Your task to perform on an android device: turn on priority inbox in the gmail app Image 0: 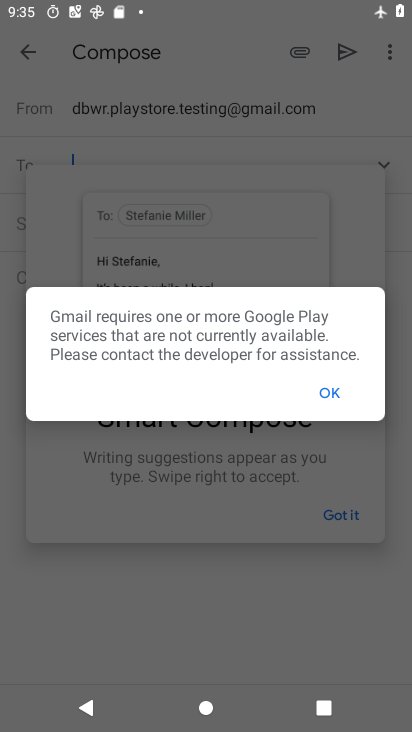
Step 0: press home button
Your task to perform on an android device: turn on priority inbox in the gmail app Image 1: 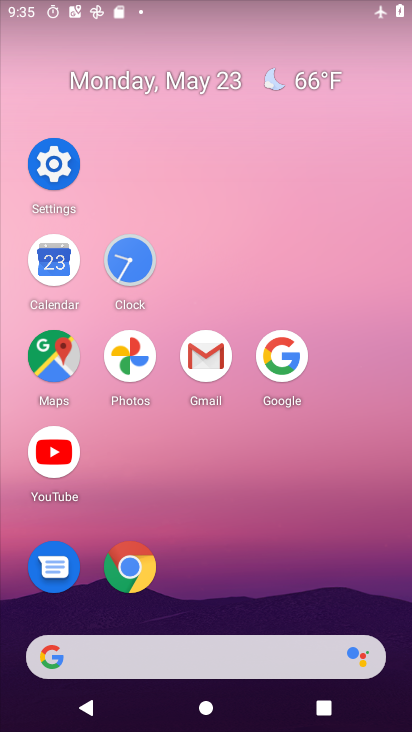
Step 1: click (219, 338)
Your task to perform on an android device: turn on priority inbox in the gmail app Image 2: 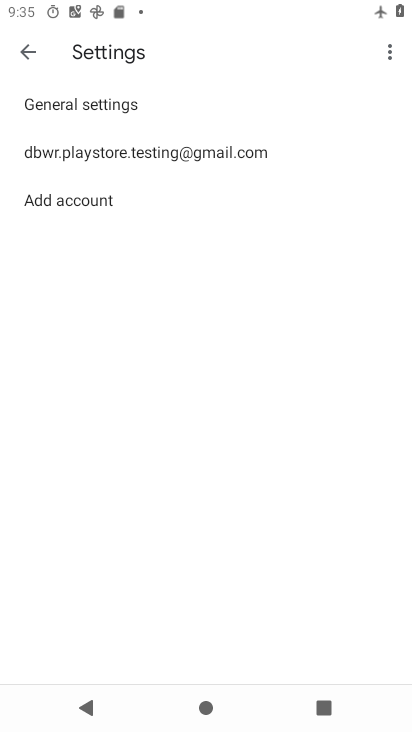
Step 2: click (17, 53)
Your task to perform on an android device: turn on priority inbox in the gmail app Image 3: 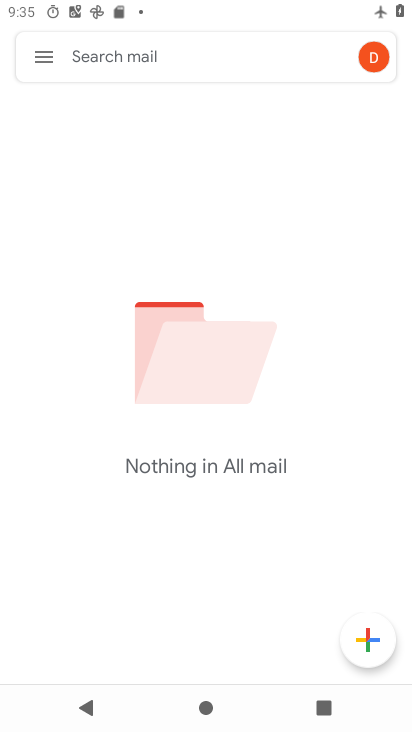
Step 3: click (24, 58)
Your task to perform on an android device: turn on priority inbox in the gmail app Image 4: 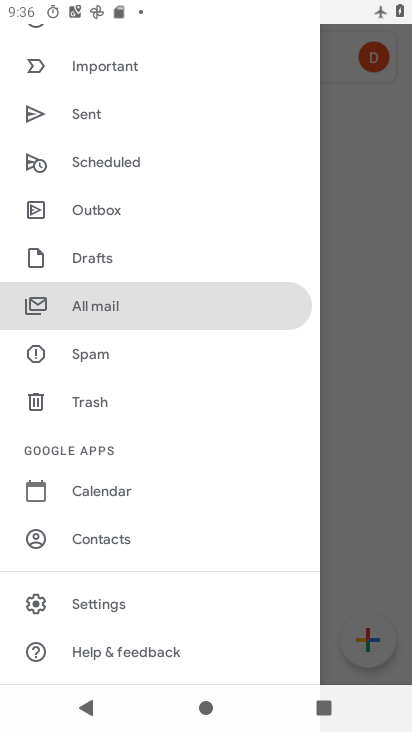
Step 4: click (118, 588)
Your task to perform on an android device: turn on priority inbox in the gmail app Image 5: 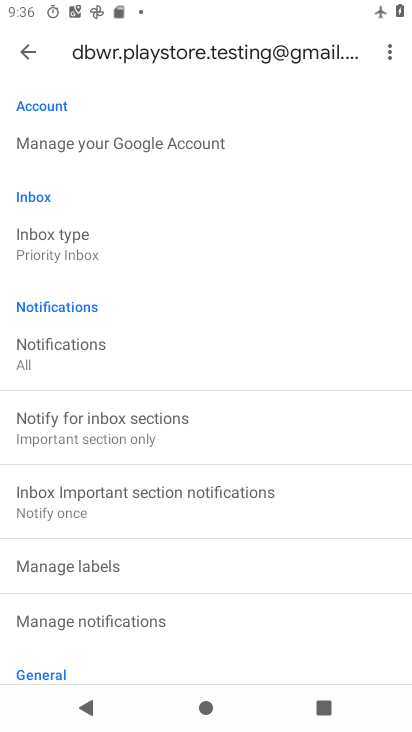
Step 5: task complete